Your task to perform on an android device: When is my next appointment? Image 0: 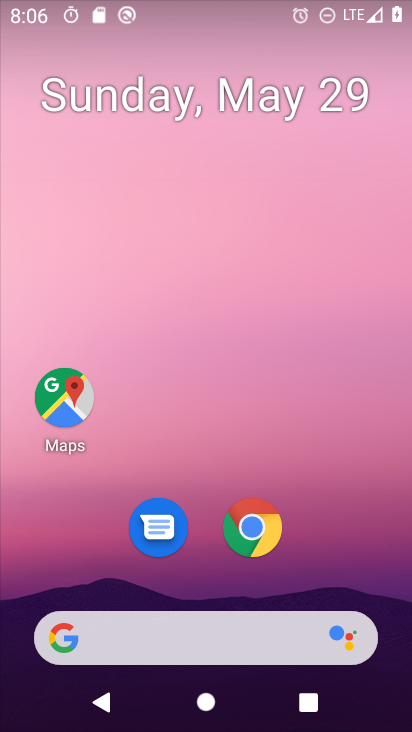
Step 0: drag from (382, 652) to (274, 22)
Your task to perform on an android device: When is my next appointment? Image 1: 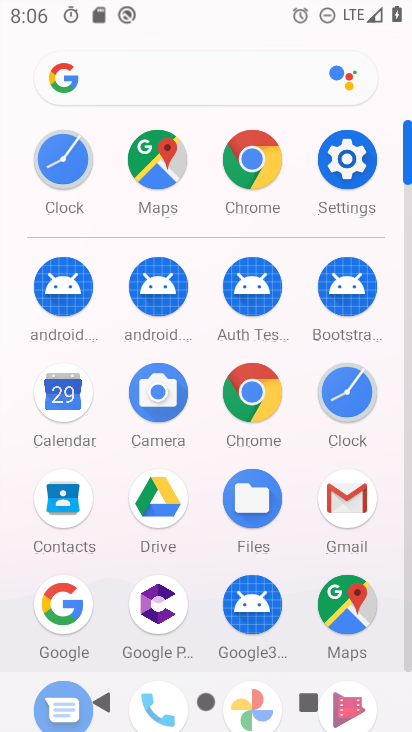
Step 1: click (80, 407)
Your task to perform on an android device: When is my next appointment? Image 2: 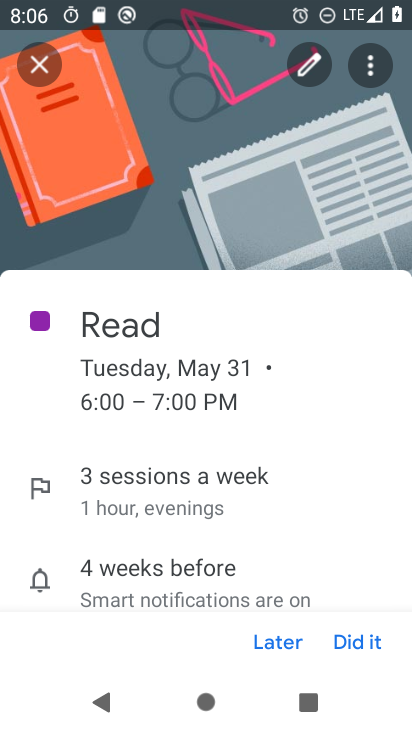
Step 2: task complete